Your task to perform on an android device: Show me the alarms in the clock app Image 0: 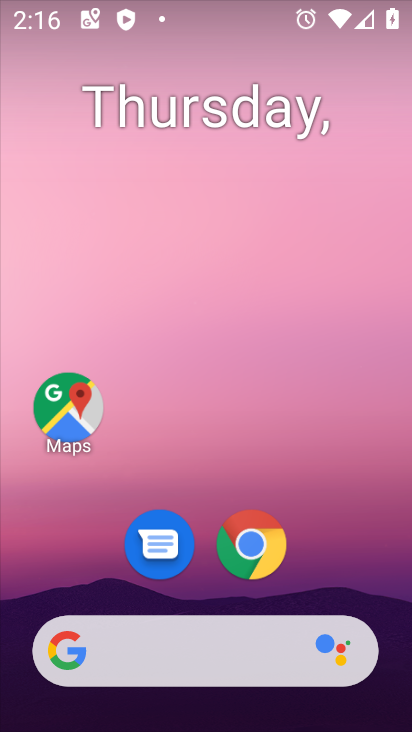
Step 0: drag from (295, 573) to (285, 218)
Your task to perform on an android device: Show me the alarms in the clock app Image 1: 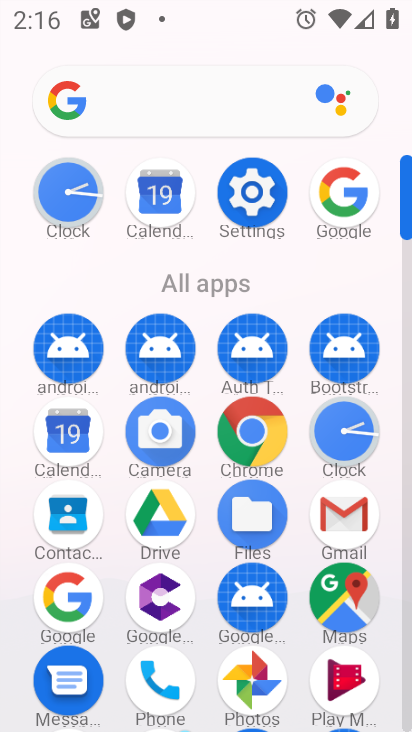
Step 1: click (321, 455)
Your task to perform on an android device: Show me the alarms in the clock app Image 2: 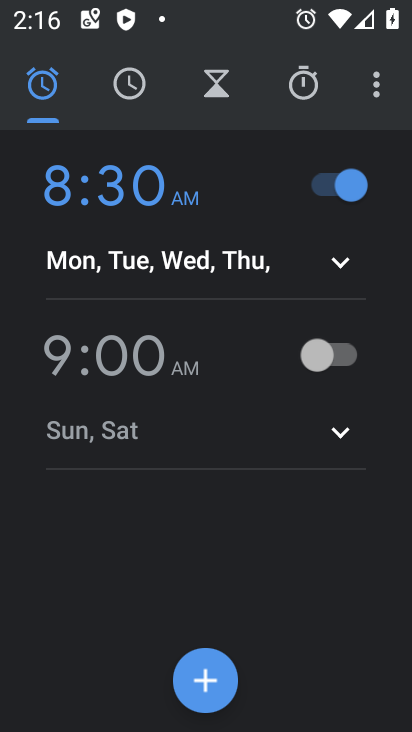
Step 2: task complete